Your task to perform on an android device: Search for pizza restaurants on Maps Image 0: 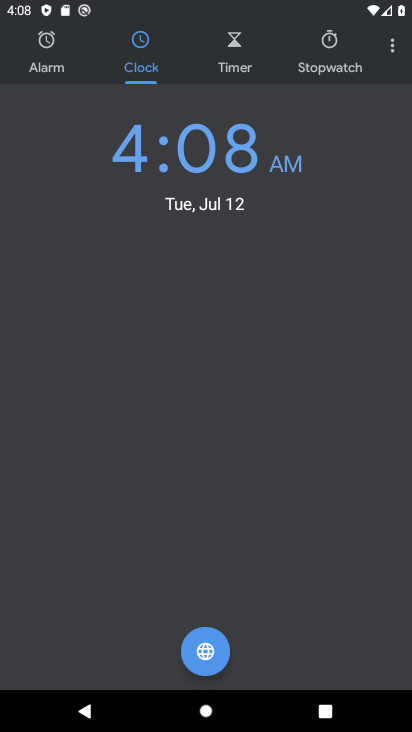
Step 0: press home button
Your task to perform on an android device: Search for pizza restaurants on Maps Image 1: 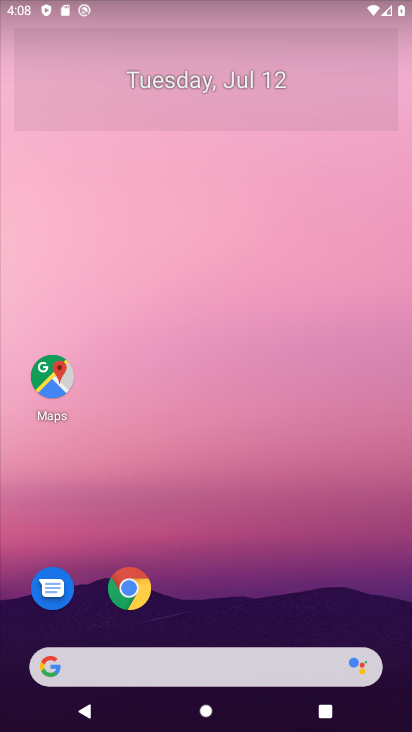
Step 1: click (32, 386)
Your task to perform on an android device: Search for pizza restaurants on Maps Image 2: 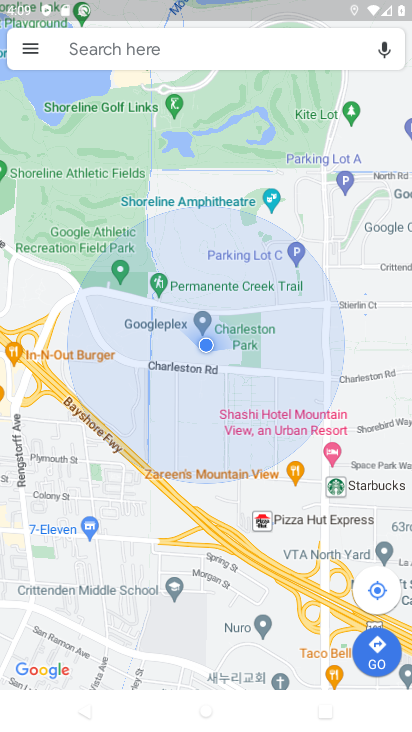
Step 2: click (239, 50)
Your task to perform on an android device: Search for pizza restaurants on Maps Image 3: 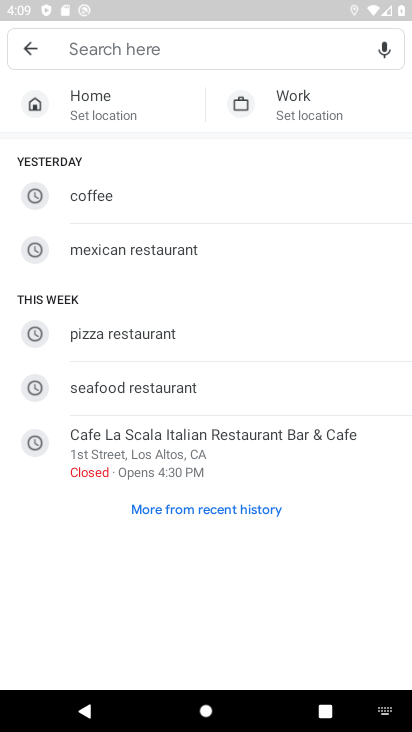
Step 3: click (133, 345)
Your task to perform on an android device: Search for pizza restaurants on Maps Image 4: 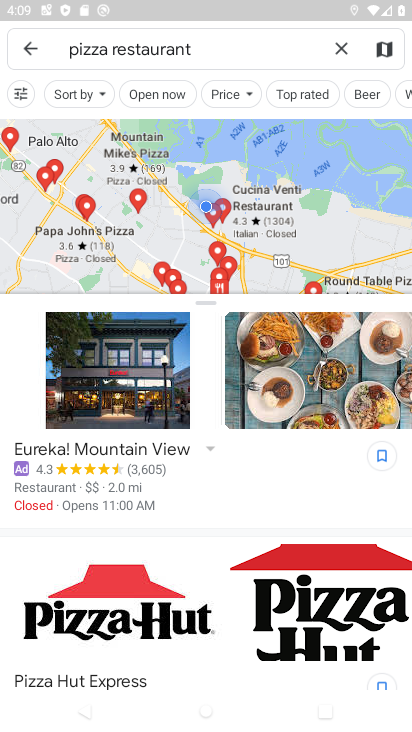
Step 4: task complete